Your task to perform on an android device: toggle show notifications on the lock screen Image 0: 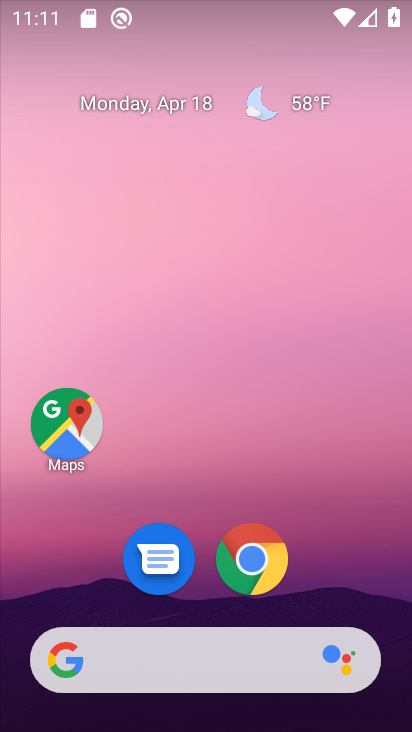
Step 0: drag from (319, 512) to (279, 178)
Your task to perform on an android device: toggle show notifications on the lock screen Image 1: 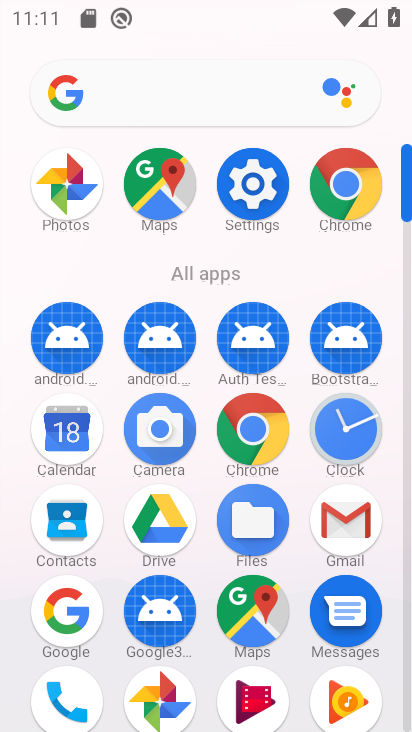
Step 1: click (258, 215)
Your task to perform on an android device: toggle show notifications on the lock screen Image 2: 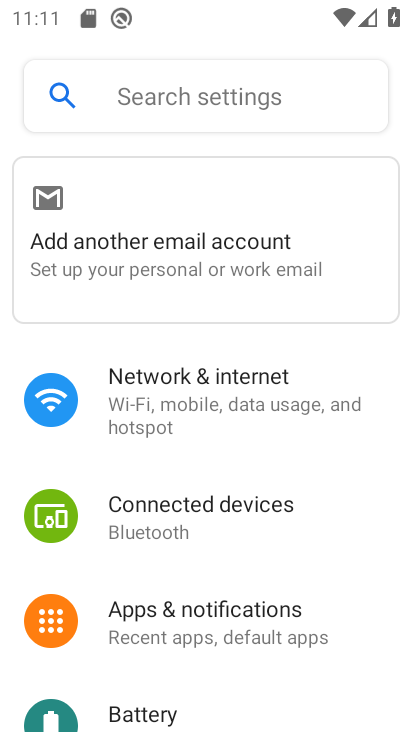
Step 2: click (180, 629)
Your task to perform on an android device: toggle show notifications on the lock screen Image 3: 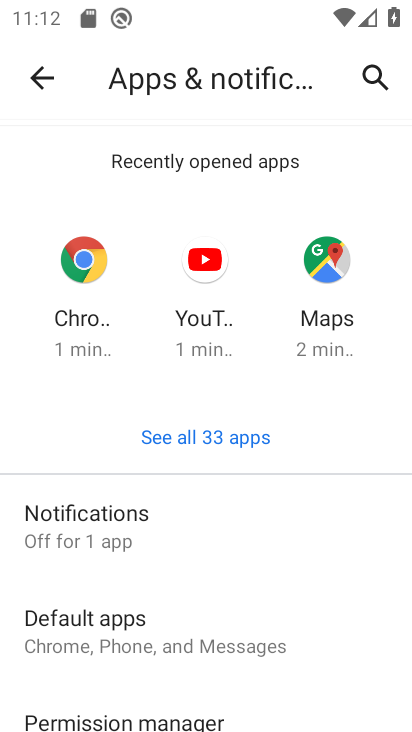
Step 3: click (74, 522)
Your task to perform on an android device: toggle show notifications on the lock screen Image 4: 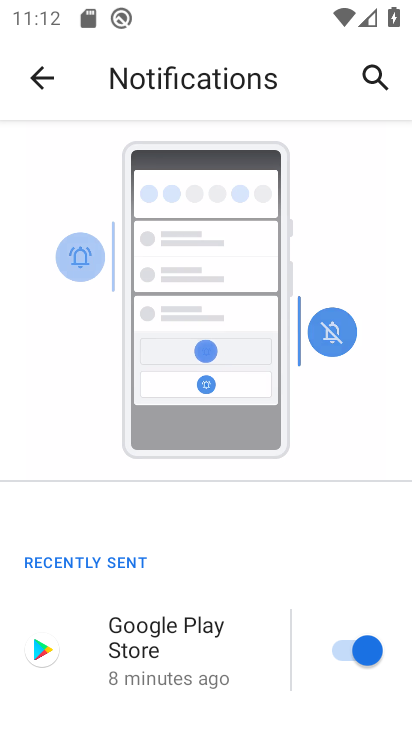
Step 4: drag from (166, 681) to (165, 155)
Your task to perform on an android device: toggle show notifications on the lock screen Image 5: 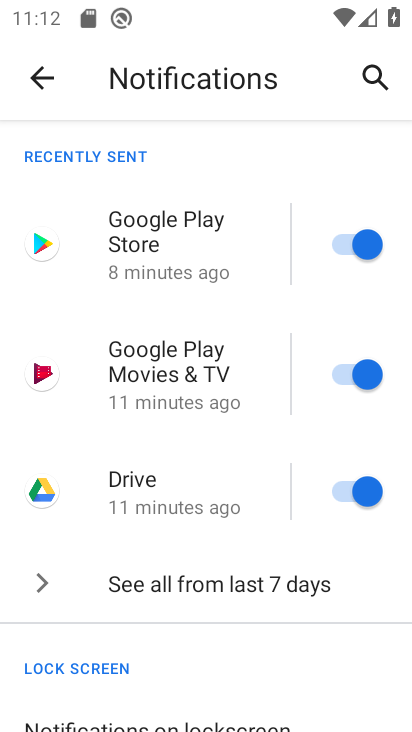
Step 5: drag from (175, 688) to (160, 269)
Your task to perform on an android device: toggle show notifications on the lock screen Image 6: 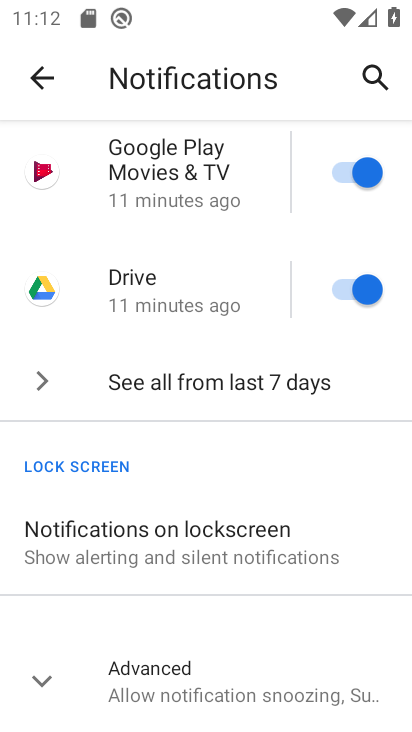
Step 6: click (116, 537)
Your task to perform on an android device: toggle show notifications on the lock screen Image 7: 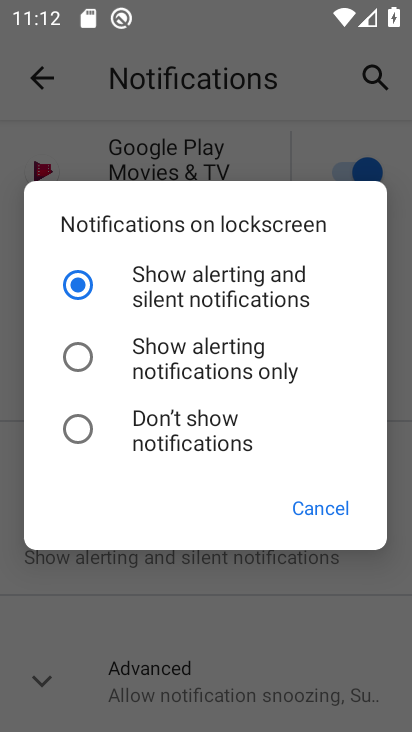
Step 7: task complete